Your task to perform on an android device: Go to ESPN.com Image 0: 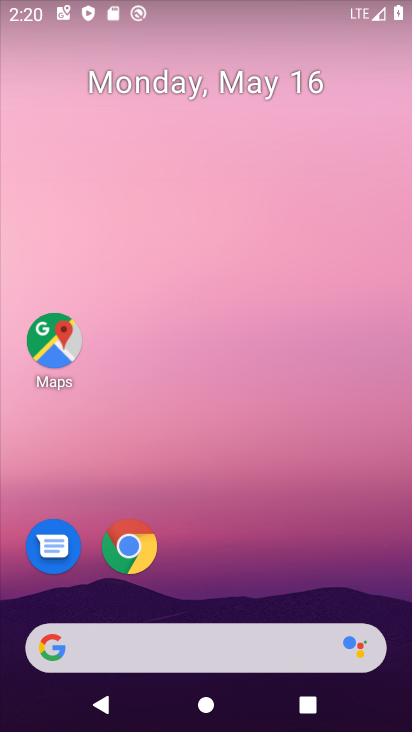
Step 0: drag from (266, 665) to (236, 270)
Your task to perform on an android device: Go to ESPN.com Image 1: 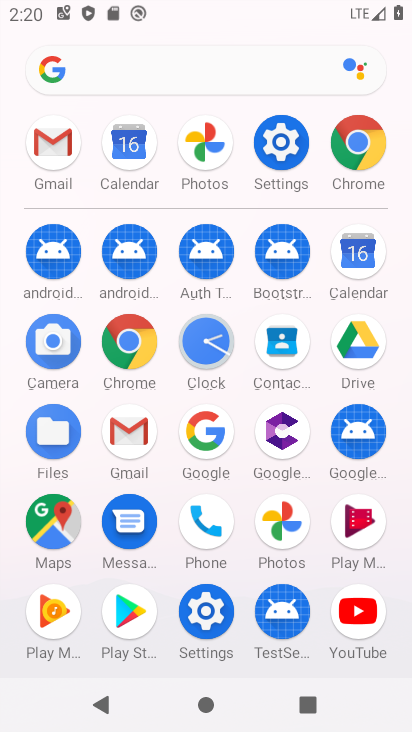
Step 1: click (339, 164)
Your task to perform on an android device: Go to ESPN.com Image 2: 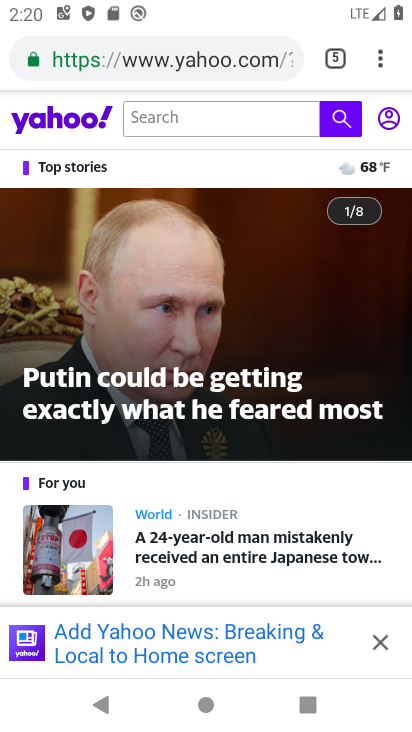
Step 2: click (224, 59)
Your task to perform on an android device: Go to ESPN.com Image 3: 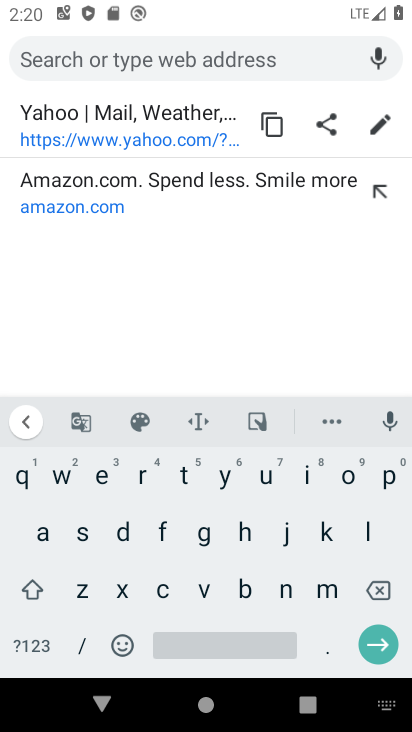
Step 3: click (101, 473)
Your task to perform on an android device: Go to ESPN.com Image 4: 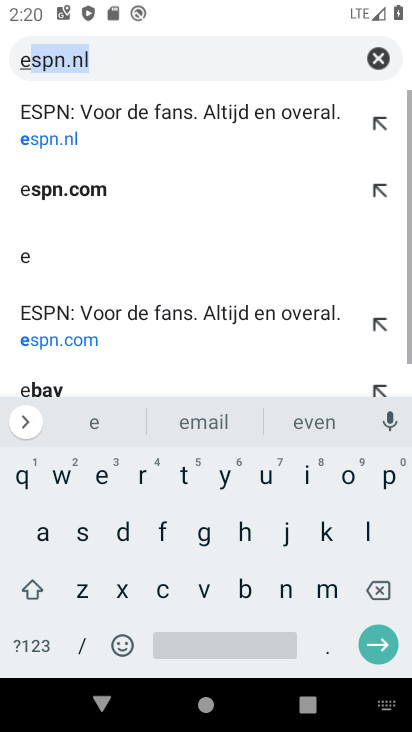
Step 4: click (82, 528)
Your task to perform on an android device: Go to ESPN.com Image 5: 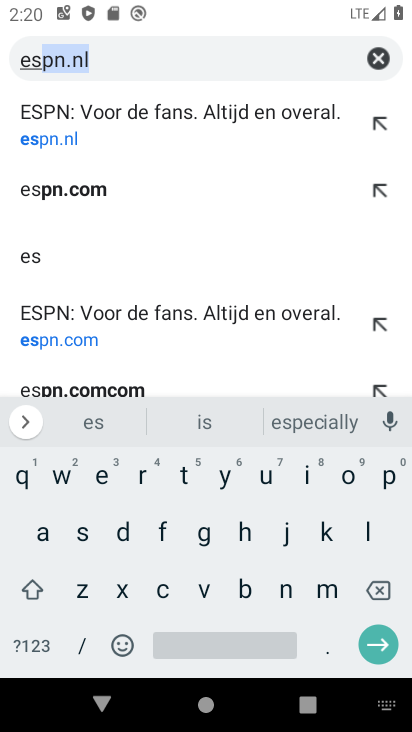
Step 5: click (90, 182)
Your task to perform on an android device: Go to ESPN.com Image 6: 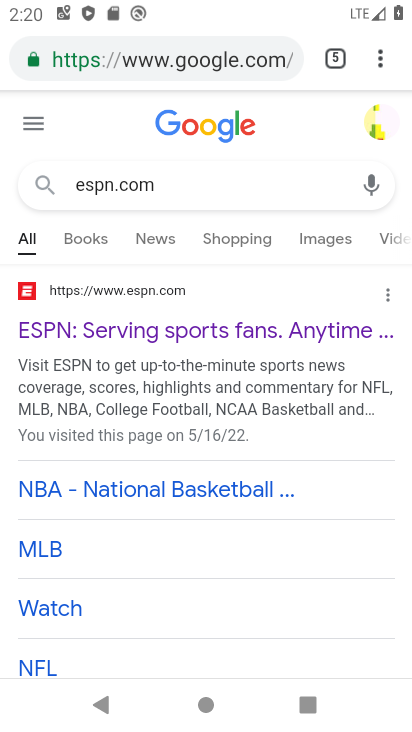
Step 6: click (66, 335)
Your task to perform on an android device: Go to ESPN.com Image 7: 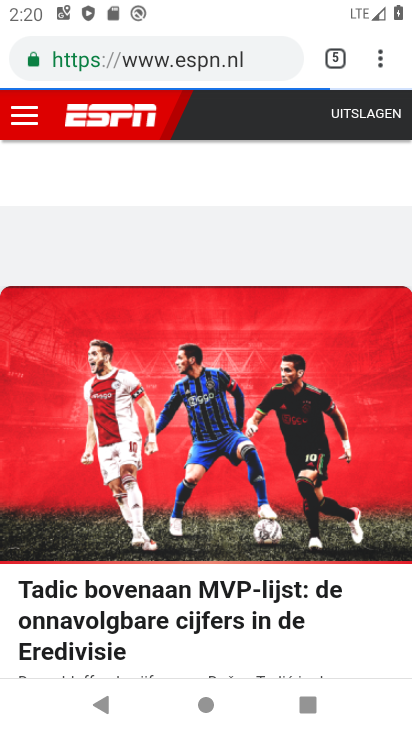
Step 7: task complete